Your task to perform on an android device: open a bookmark in the chrome app Image 0: 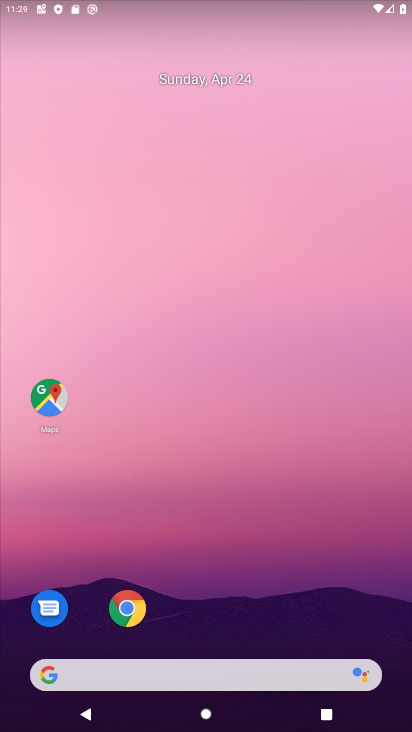
Step 0: click (126, 610)
Your task to perform on an android device: open a bookmark in the chrome app Image 1: 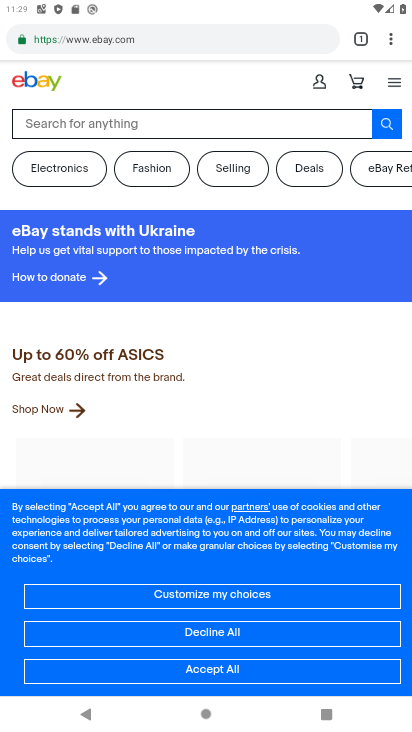
Step 1: drag from (388, 39) to (286, 137)
Your task to perform on an android device: open a bookmark in the chrome app Image 2: 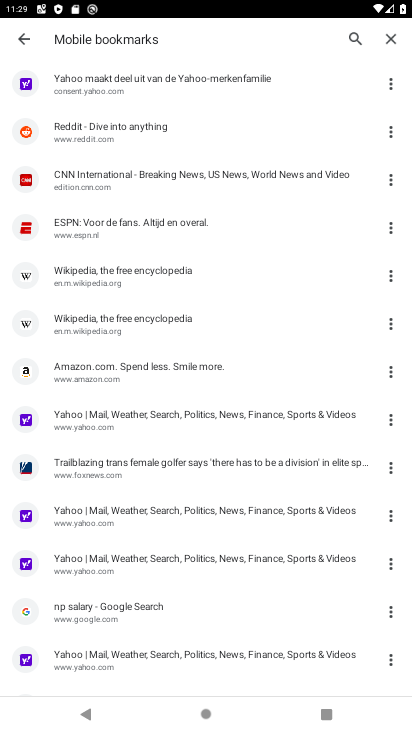
Step 2: click (145, 175)
Your task to perform on an android device: open a bookmark in the chrome app Image 3: 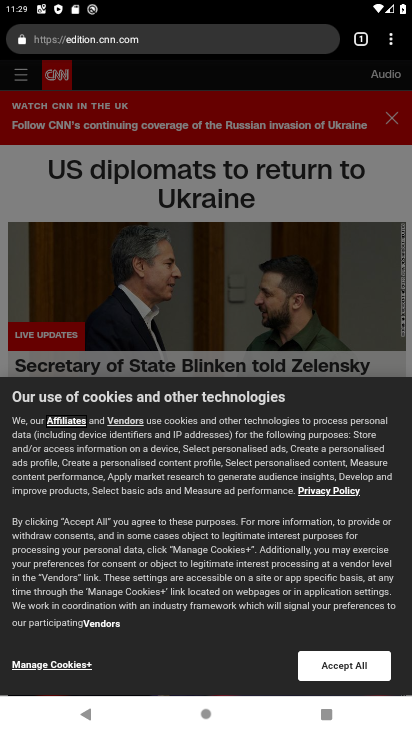
Step 3: task complete